Your task to perform on an android device: find snoozed emails in the gmail app Image 0: 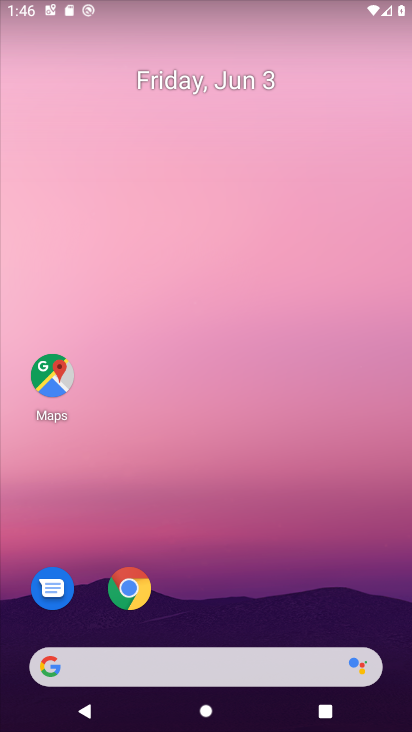
Step 0: drag from (181, 615) to (186, 225)
Your task to perform on an android device: find snoozed emails in the gmail app Image 1: 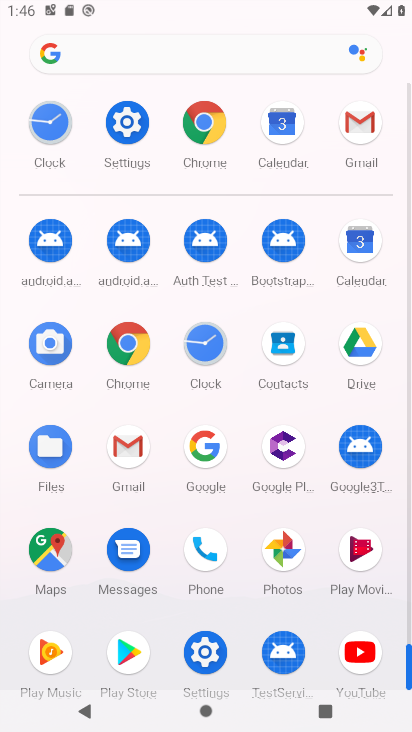
Step 1: click (131, 472)
Your task to perform on an android device: find snoozed emails in the gmail app Image 2: 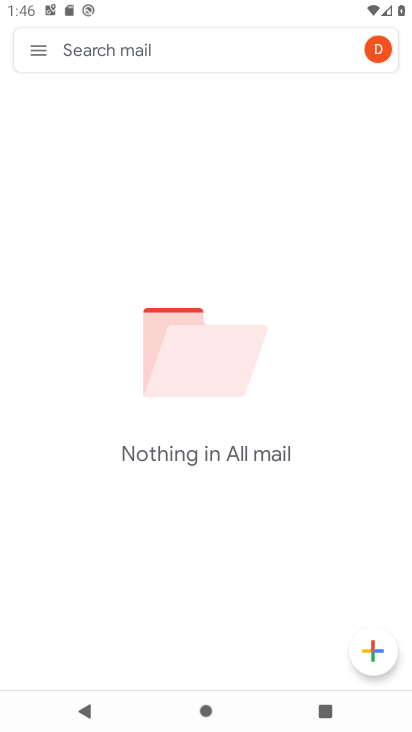
Step 2: click (41, 53)
Your task to perform on an android device: find snoozed emails in the gmail app Image 3: 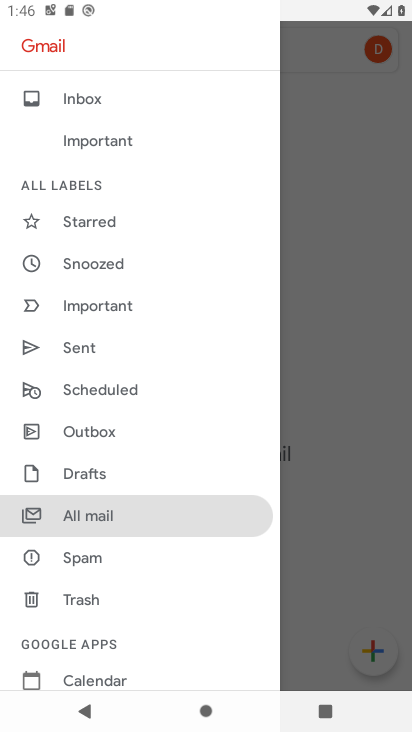
Step 3: click (116, 274)
Your task to perform on an android device: find snoozed emails in the gmail app Image 4: 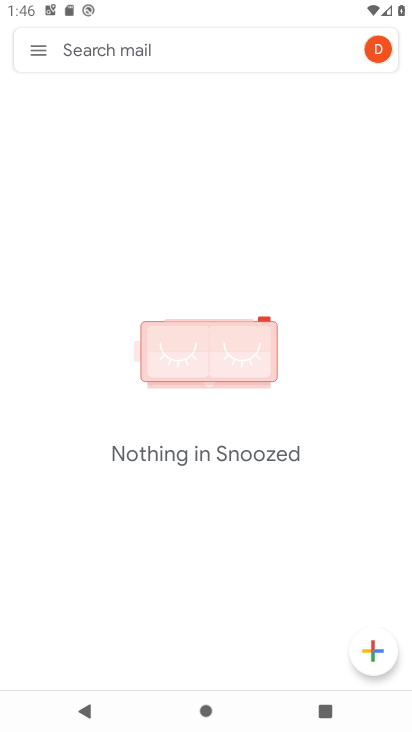
Step 4: task complete